Your task to perform on an android device: Open Yahoo.com Image 0: 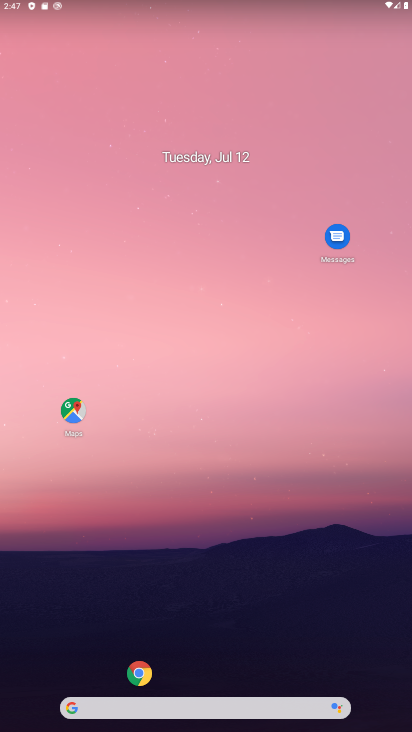
Step 0: click (171, 709)
Your task to perform on an android device: Open Yahoo.com Image 1: 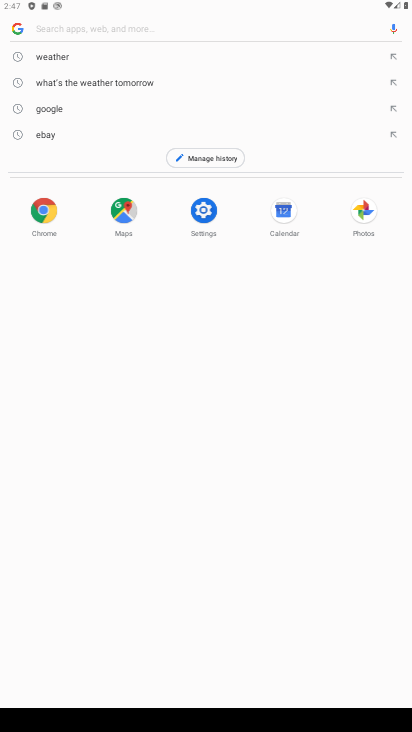
Step 1: click (60, 26)
Your task to perform on an android device: Open Yahoo.com Image 2: 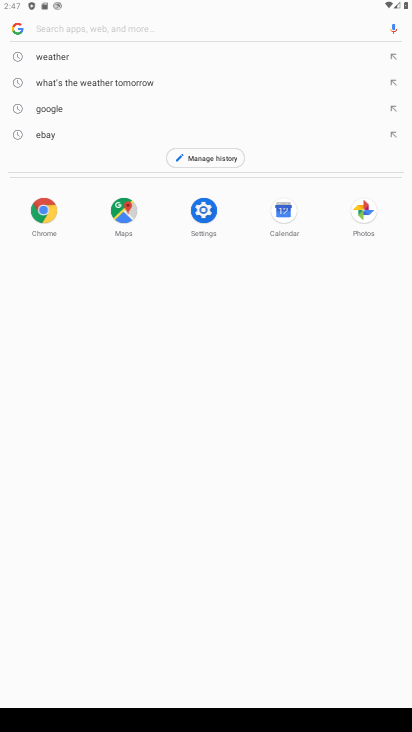
Step 2: type "Yahoo.com"
Your task to perform on an android device: Open Yahoo.com Image 3: 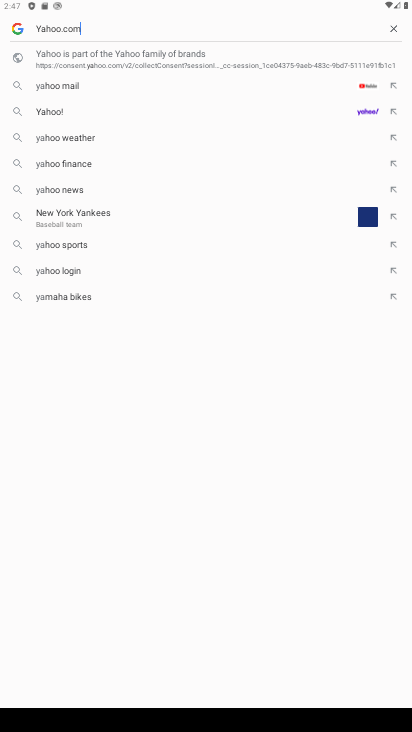
Step 3: type ""
Your task to perform on an android device: Open Yahoo.com Image 4: 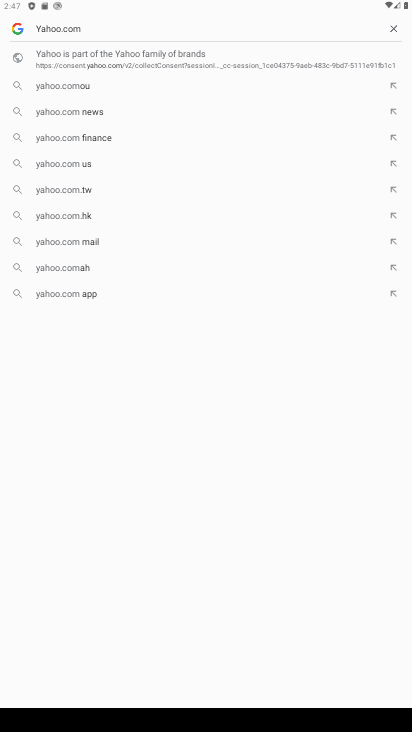
Step 4: type ""
Your task to perform on an android device: Open Yahoo.com Image 5: 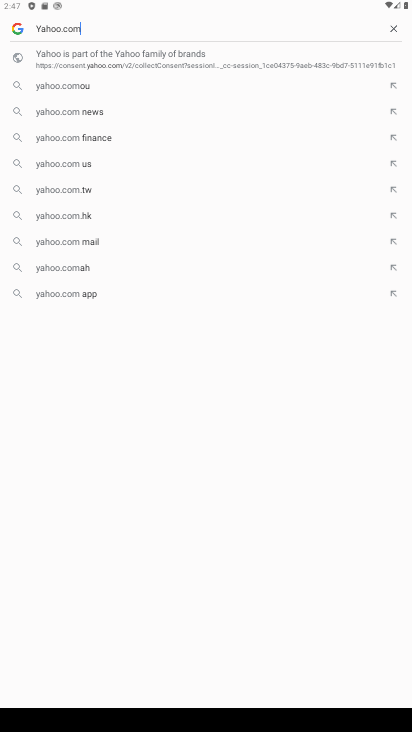
Step 5: type ""
Your task to perform on an android device: Open Yahoo.com Image 6: 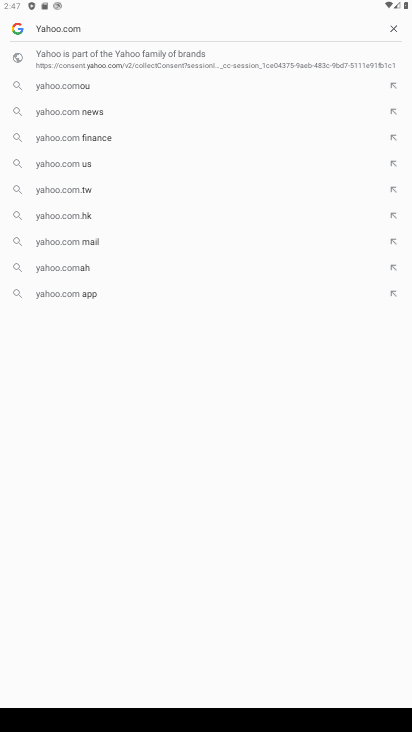
Step 6: type ""
Your task to perform on an android device: Open Yahoo.com Image 7: 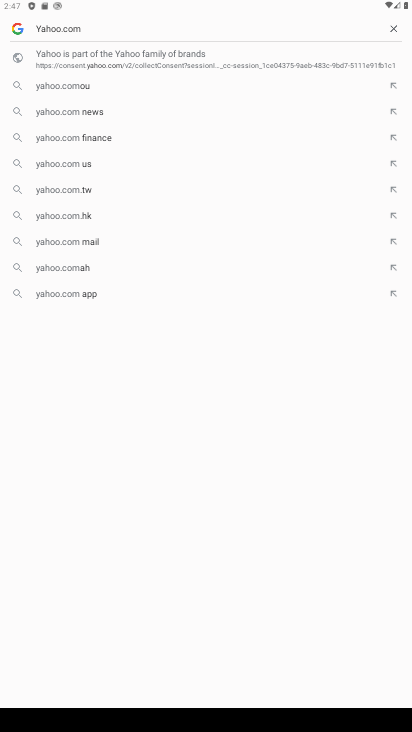
Step 7: task complete